Your task to perform on an android device: find snoozed emails in the gmail app Image 0: 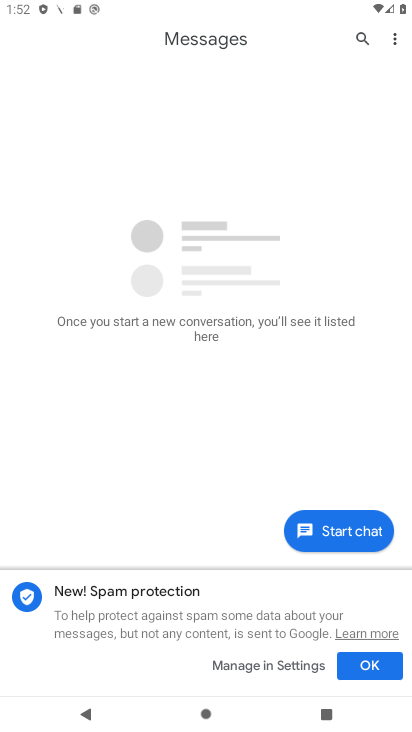
Step 0: press home button
Your task to perform on an android device: find snoozed emails in the gmail app Image 1: 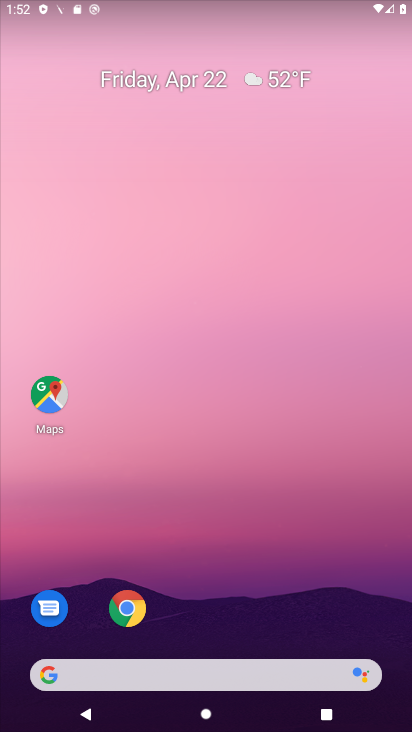
Step 1: drag from (280, 593) to (173, 56)
Your task to perform on an android device: find snoozed emails in the gmail app Image 2: 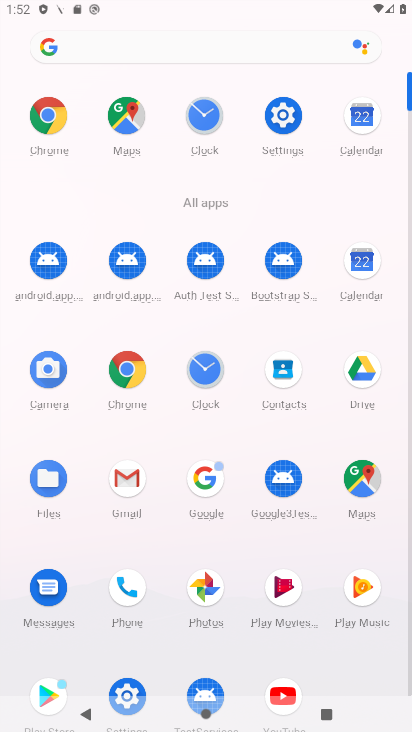
Step 2: click (128, 477)
Your task to perform on an android device: find snoozed emails in the gmail app Image 3: 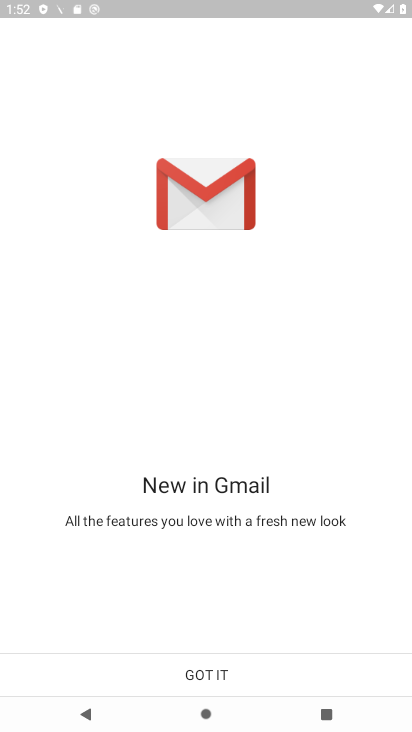
Step 3: click (219, 676)
Your task to perform on an android device: find snoozed emails in the gmail app Image 4: 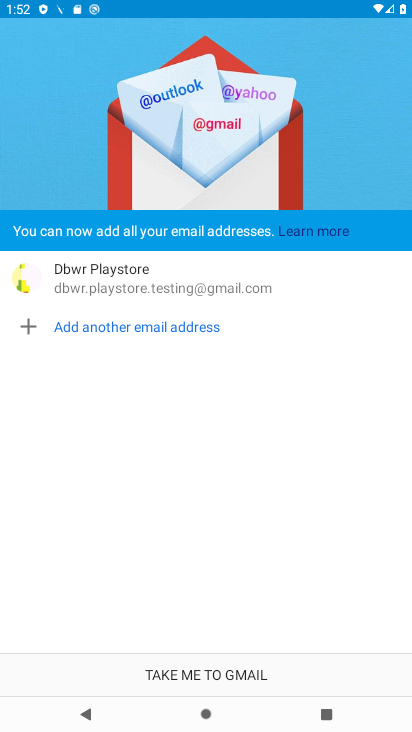
Step 4: click (218, 675)
Your task to perform on an android device: find snoozed emails in the gmail app Image 5: 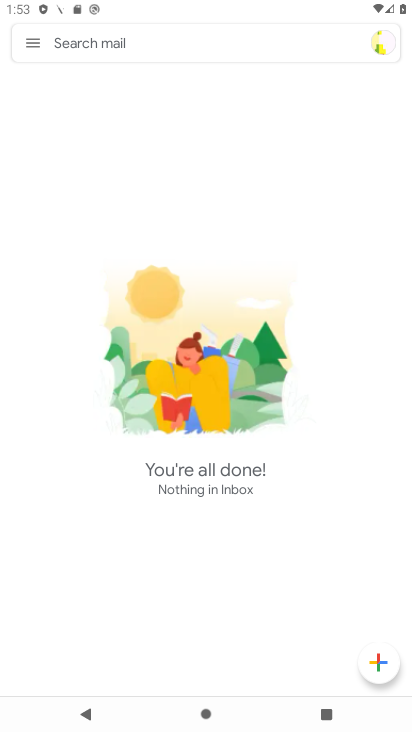
Step 5: click (26, 41)
Your task to perform on an android device: find snoozed emails in the gmail app Image 6: 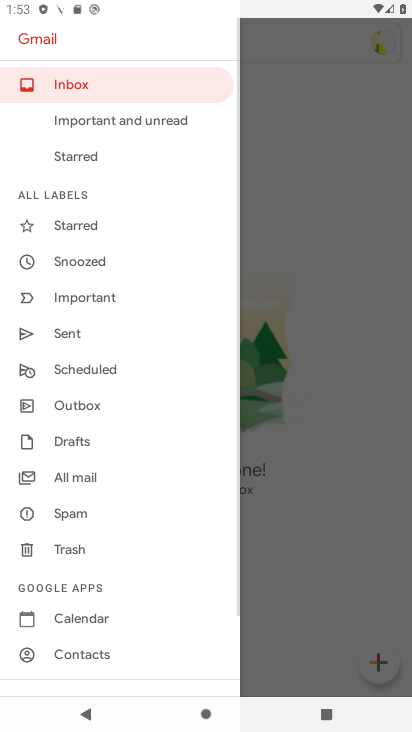
Step 6: click (105, 266)
Your task to perform on an android device: find snoozed emails in the gmail app Image 7: 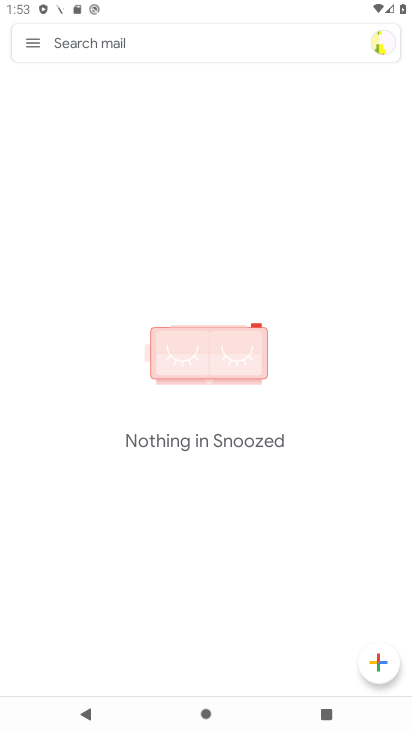
Step 7: task complete